Your task to perform on an android device: empty trash in the gmail app Image 0: 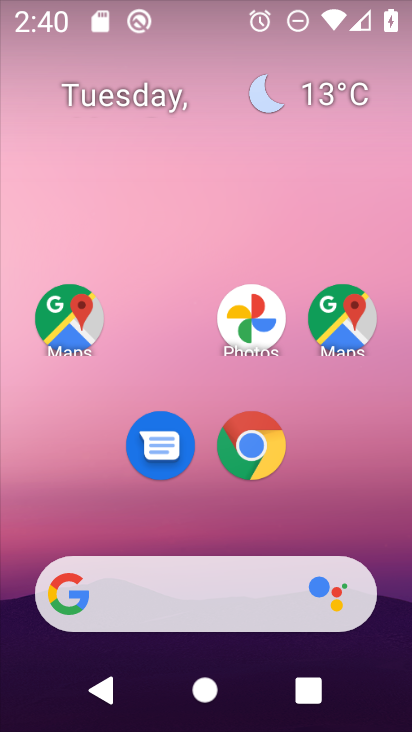
Step 0: drag from (394, 554) to (393, 165)
Your task to perform on an android device: empty trash in the gmail app Image 1: 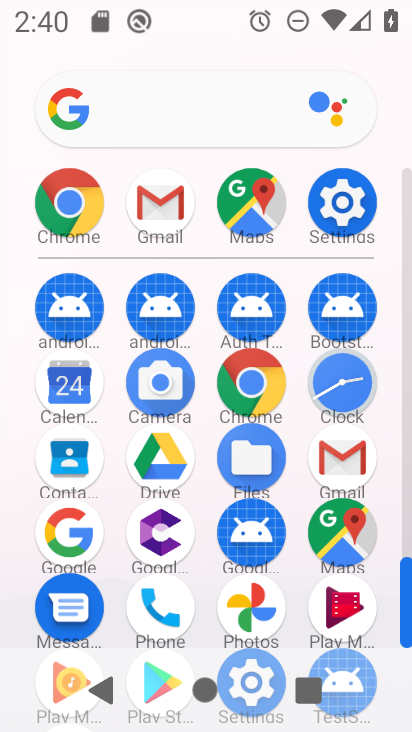
Step 1: click (354, 468)
Your task to perform on an android device: empty trash in the gmail app Image 2: 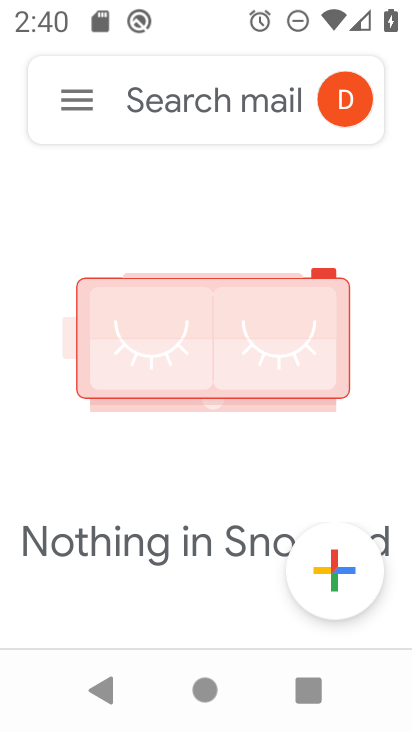
Step 2: click (74, 95)
Your task to perform on an android device: empty trash in the gmail app Image 3: 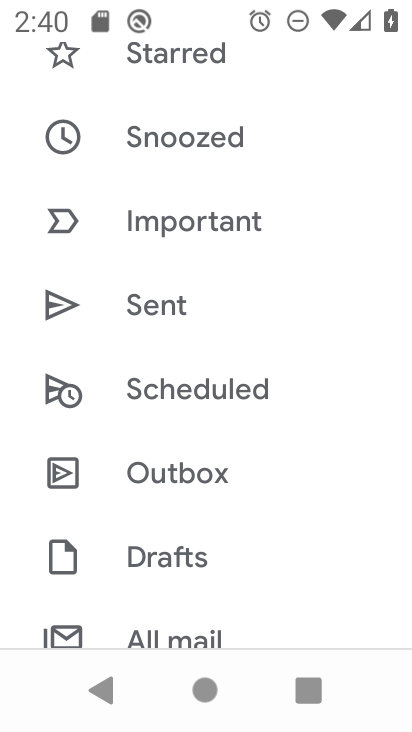
Step 3: drag from (352, 535) to (355, 441)
Your task to perform on an android device: empty trash in the gmail app Image 4: 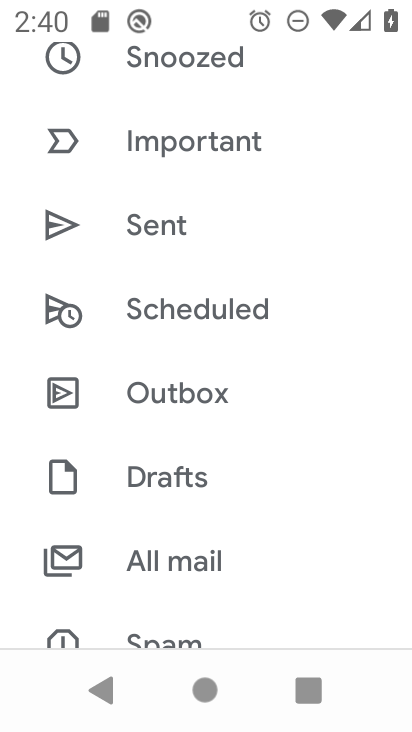
Step 4: drag from (343, 563) to (344, 371)
Your task to perform on an android device: empty trash in the gmail app Image 5: 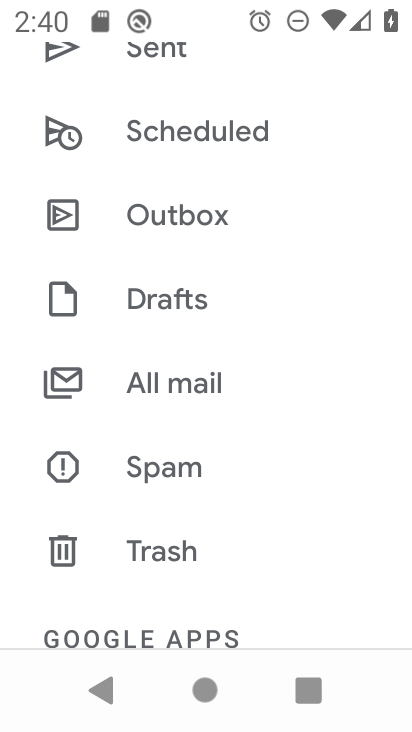
Step 5: drag from (350, 548) to (337, 403)
Your task to perform on an android device: empty trash in the gmail app Image 6: 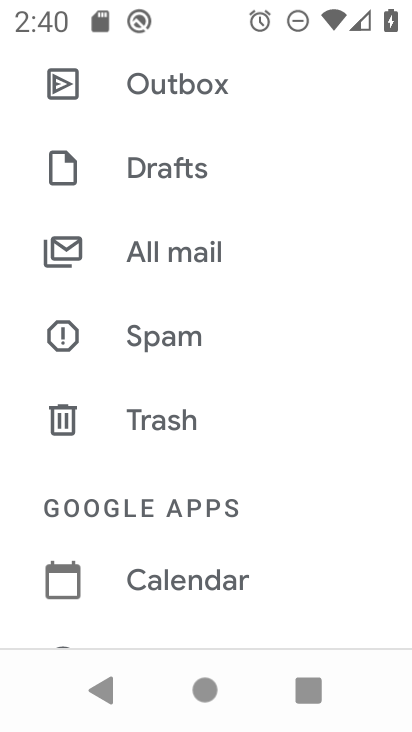
Step 6: drag from (332, 582) to (338, 431)
Your task to perform on an android device: empty trash in the gmail app Image 7: 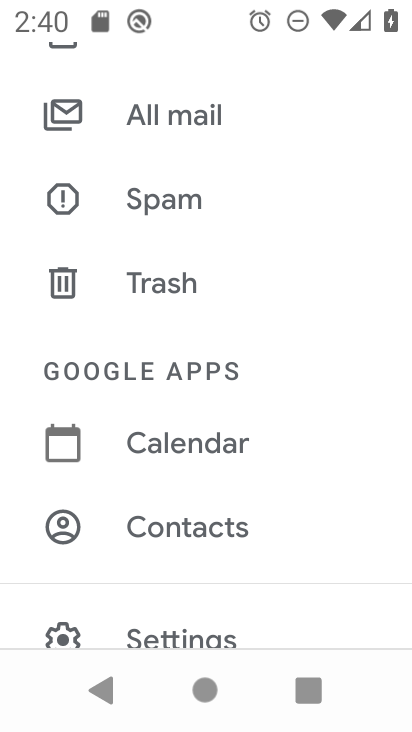
Step 7: drag from (353, 577) to (340, 442)
Your task to perform on an android device: empty trash in the gmail app Image 8: 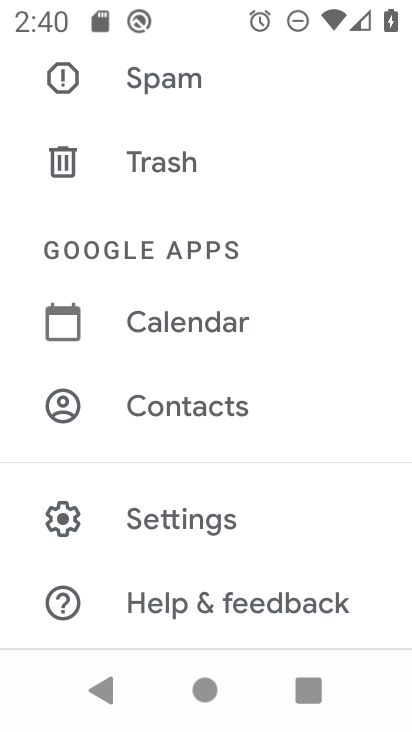
Step 8: drag from (341, 219) to (358, 387)
Your task to perform on an android device: empty trash in the gmail app Image 9: 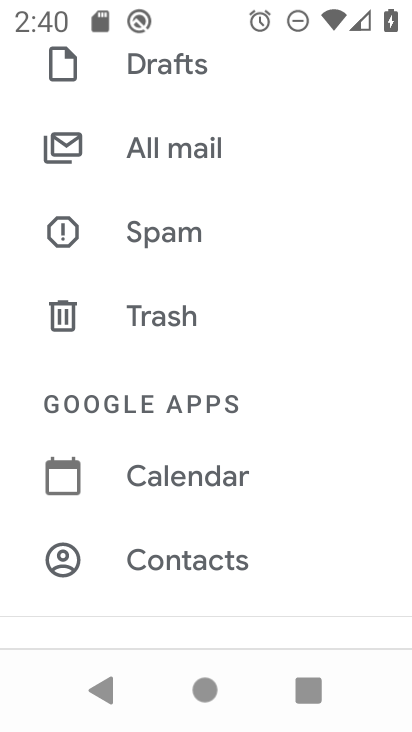
Step 9: click (233, 314)
Your task to perform on an android device: empty trash in the gmail app Image 10: 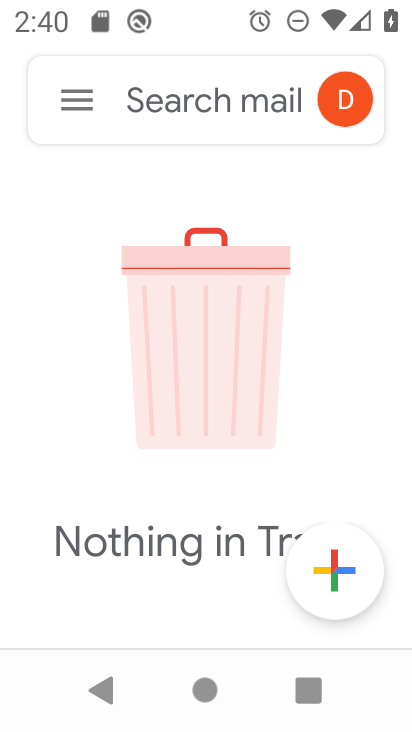
Step 10: task complete